Your task to perform on an android device: delete a single message in the gmail app Image 0: 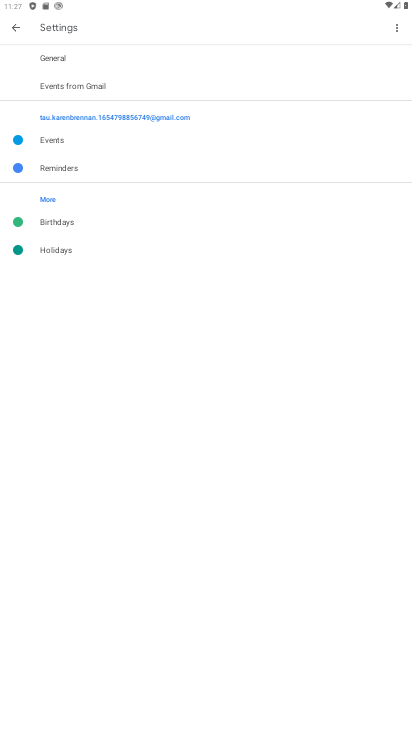
Step 0: press home button
Your task to perform on an android device: delete a single message in the gmail app Image 1: 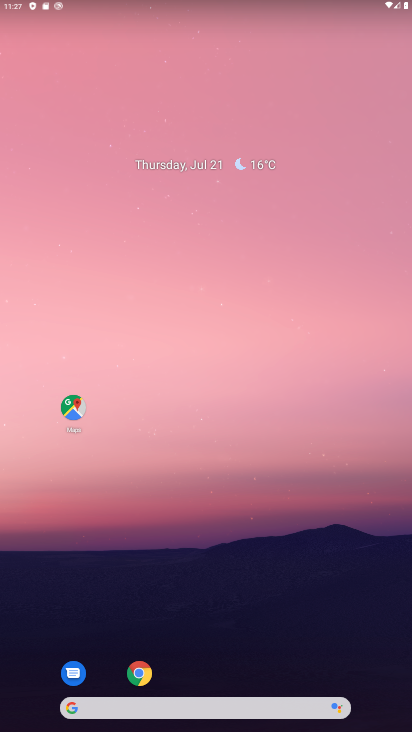
Step 1: drag from (336, 629) to (295, 89)
Your task to perform on an android device: delete a single message in the gmail app Image 2: 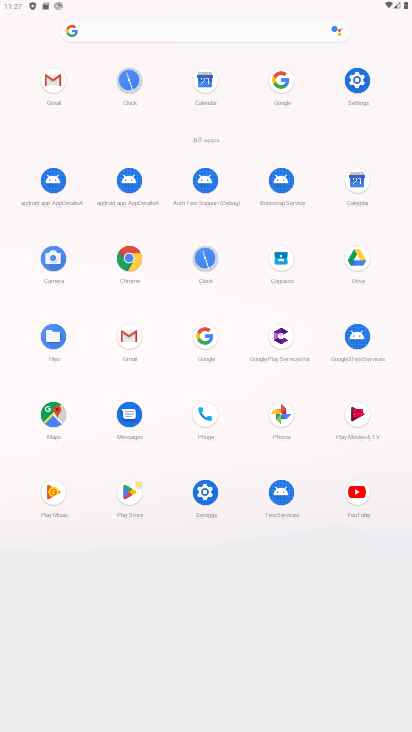
Step 2: click (136, 336)
Your task to perform on an android device: delete a single message in the gmail app Image 3: 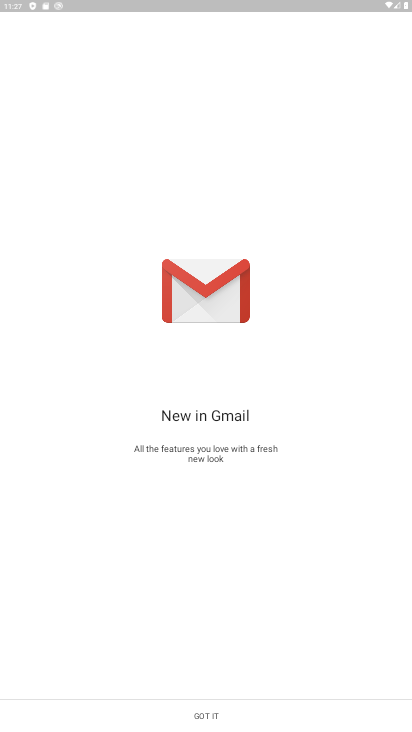
Step 3: click (212, 721)
Your task to perform on an android device: delete a single message in the gmail app Image 4: 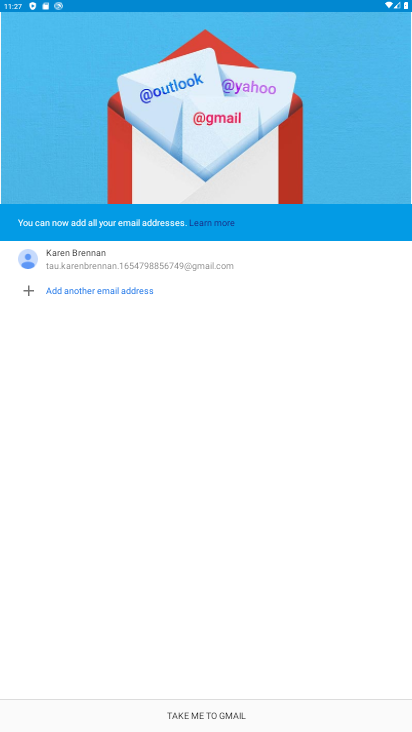
Step 4: click (212, 716)
Your task to perform on an android device: delete a single message in the gmail app Image 5: 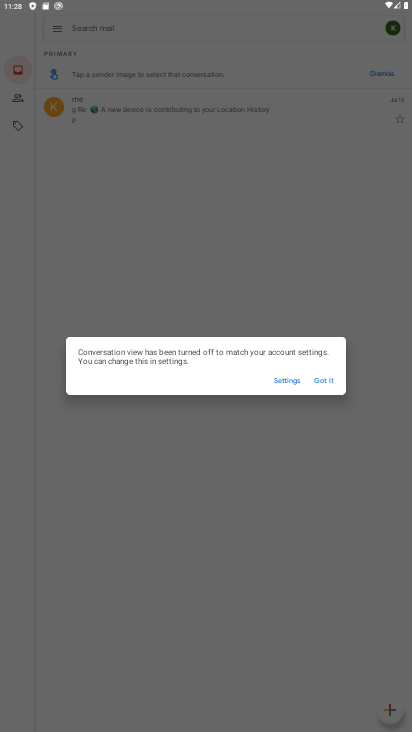
Step 5: click (321, 379)
Your task to perform on an android device: delete a single message in the gmail app Image 6: 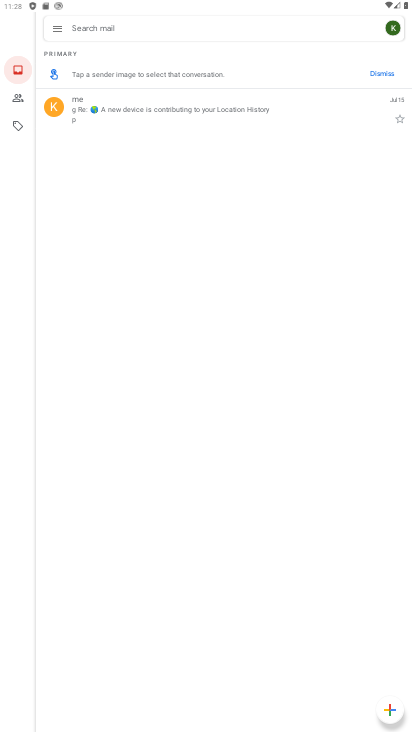
Step 6: click (217, 120)
Your task to perform on an android device: delete a single message in the gmail app Image 7: 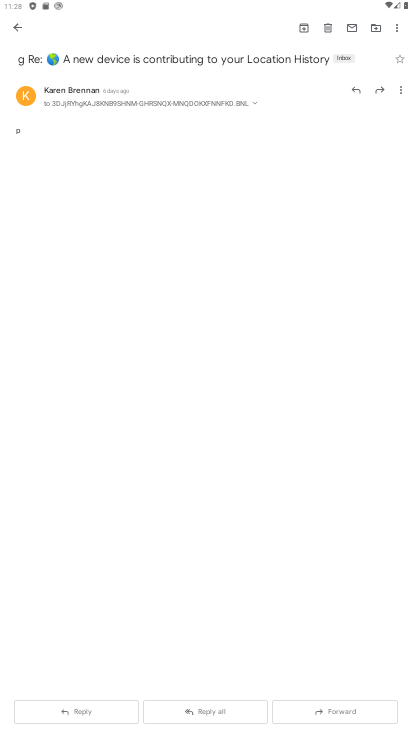
Step 7: click (331, 30)
Your task to perform on an android device: delete a single message in the gmail app Image 8: 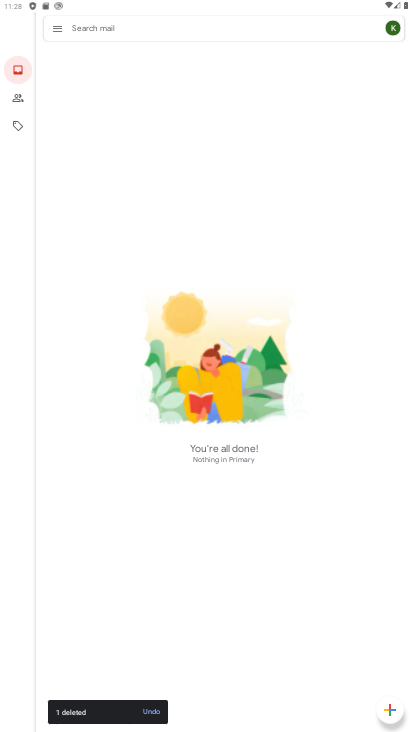
Step 8: task complete